Your task to perform on an android device: clear all cookies in the chrome app Image 0: 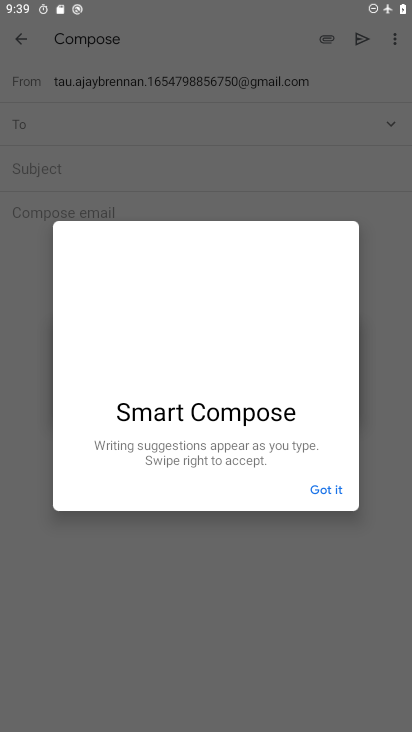
Step 0: press home button
Your task to perform on an android device: clear all cookies in the chrome app Image 1: 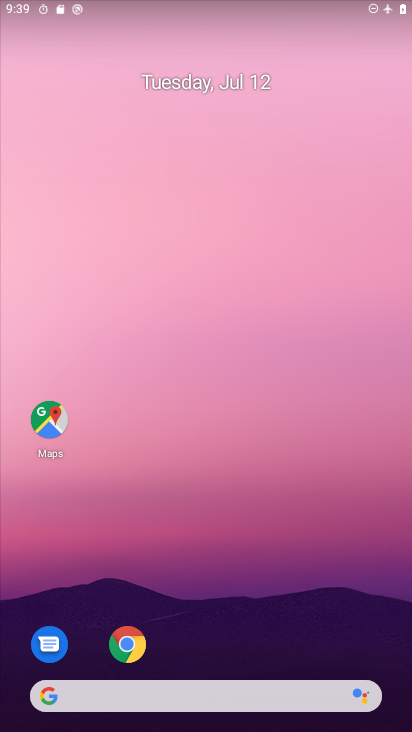
Step 1: click (127, 644)
Your task to perform on an android device: clear all cookies in the chrome app Image 2: 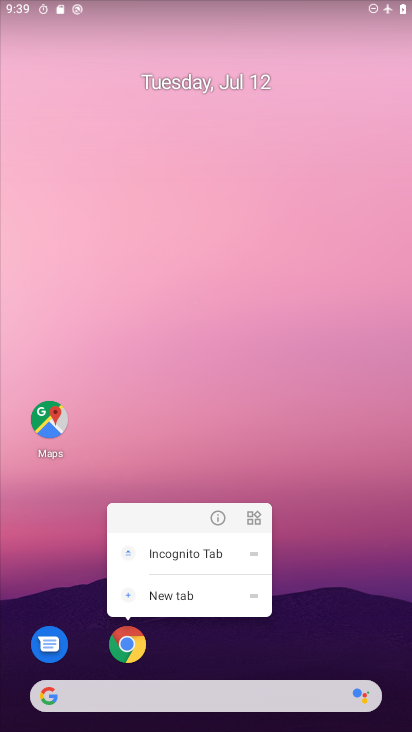
Step 2: click (132, 639)
Your task to perform on an android device: clear all cookies in the chrome app Image 3: 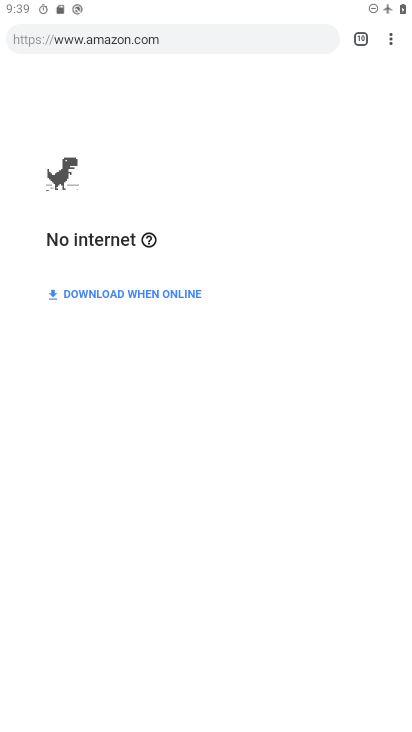
Step 3: click (387, 44)
Your task to perform on an android device: clear all cookies in the chrome app Image 4: 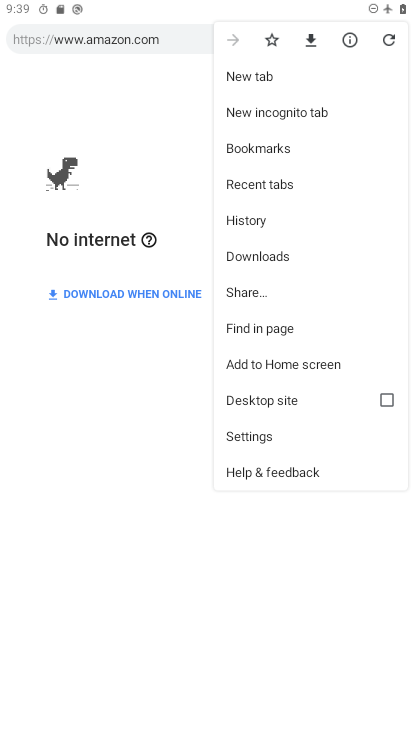
Step 4: click (273, 215)
Your task to perform on an android device: clear all cookies in the chrome app Image 5: 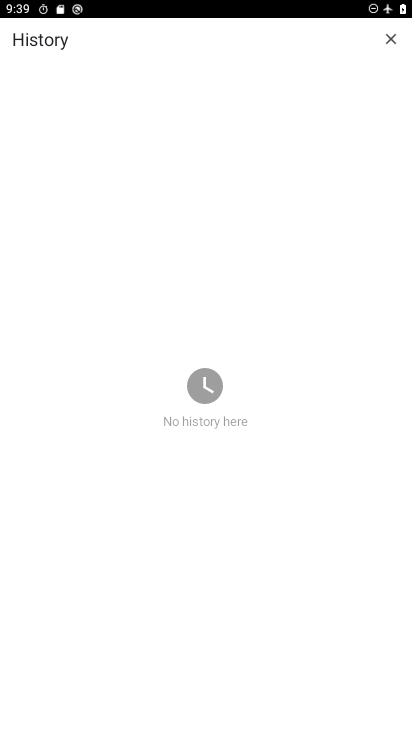
Step 5: task complete